Your task to perform on an android device: Open location settings Image 0: 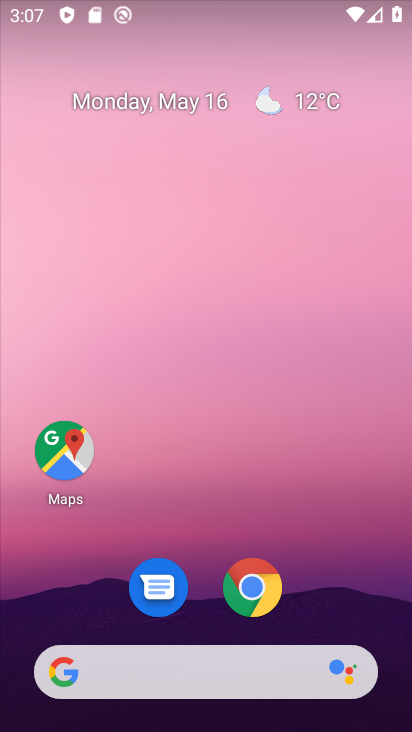
Step 0: drag from (391, 521) to (380, 255)
Your task to perform on an android device: Open location settings Image 1: 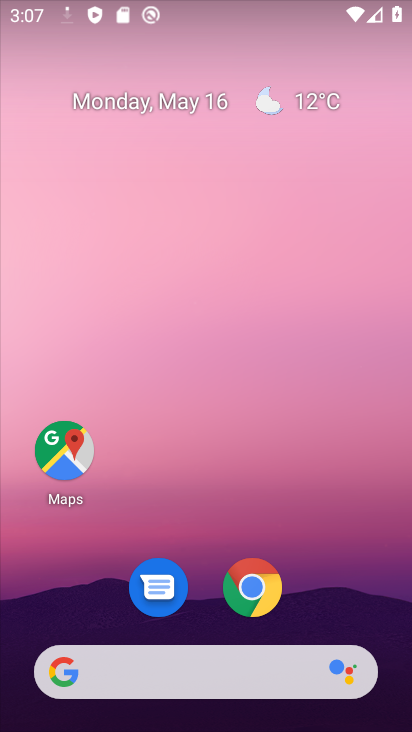
Step 1: drag from (395, 674) to (362, 213)
Your task to perform on an android device: Open location settings Image 2: 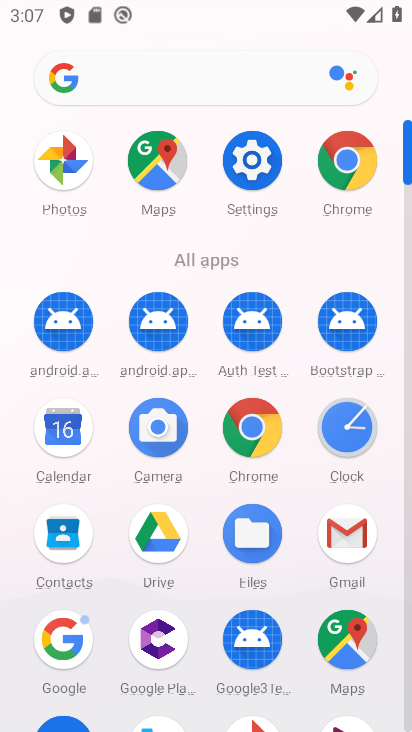
Step 2: click (234, 166)
Your task to perform on an android device: Open location settings Image 3: 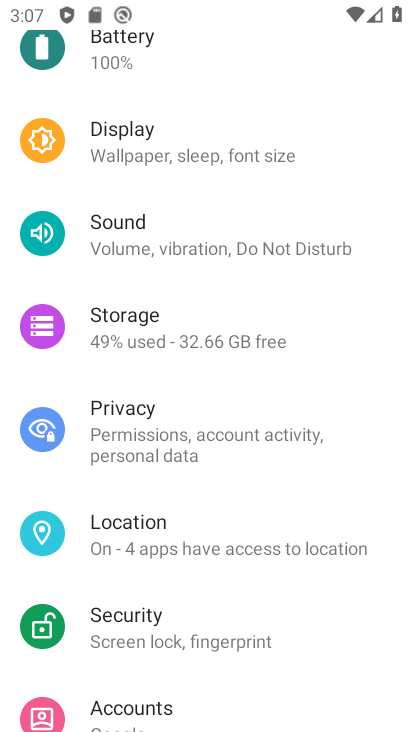
Step 3: click (112, 532)
Your task to perform on an android device: Open location settings Image 4: 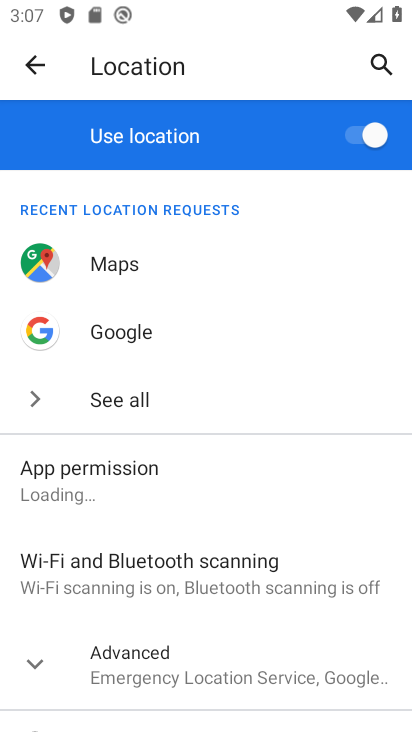
Step 4: task complete